Your task to perform on an android device: What's the weather going to be this weekend? Image 0: 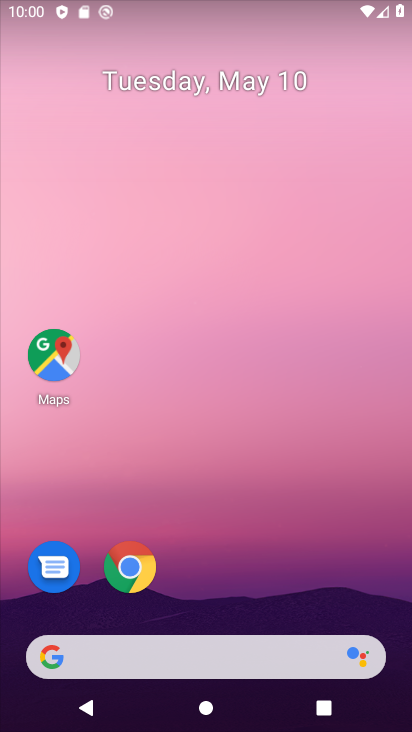
Step 0: click (242, 650)
Your task to perform on an android device: What's the weather going to be this weekend? Image 1: 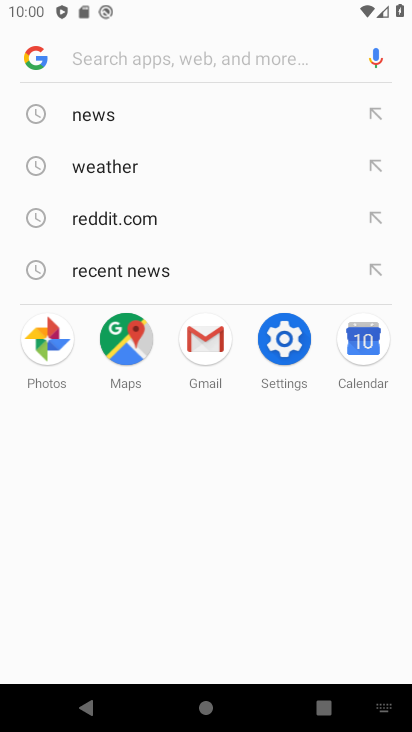
Step 1: type "What's the weather going to be this weekend?"
Your task to perform on an android device: What's the weather going to be this weekend? Image 2: 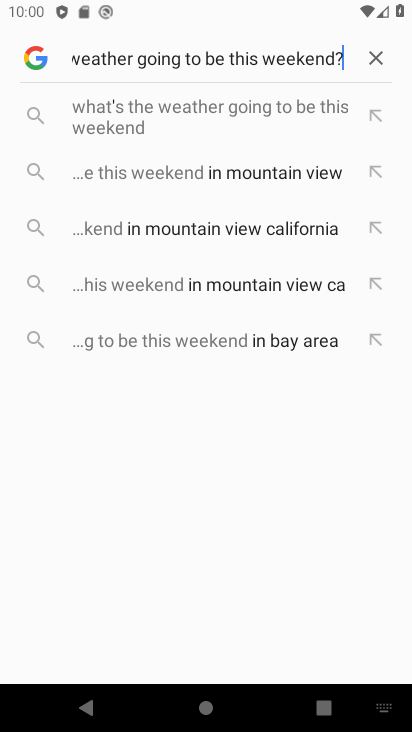
Step 2: click (135, 56)
Your task to perform on an android device: What's the weather going to be this weekend? Image 3: 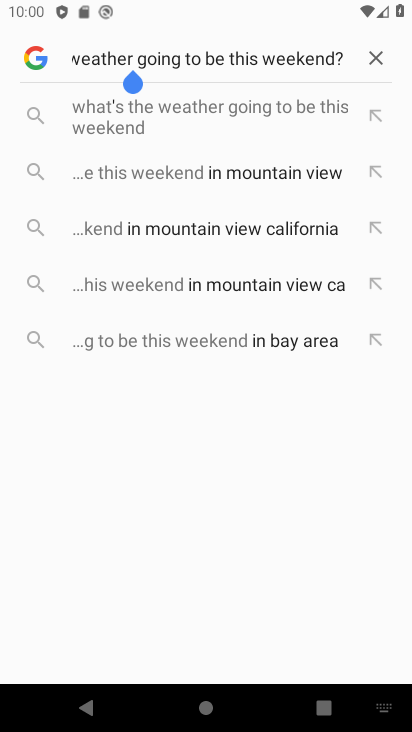
Step 3: click (133, 106)
Your task to perform on an android device: What's the weather going to be this weekend? Image 4: 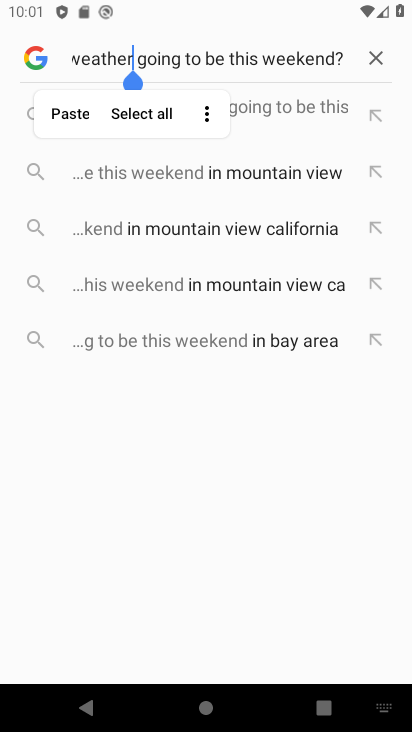
Step 4: click (278, 112)
Your task to perform on an android device: What's the weather going to be this weekend? Image 5: 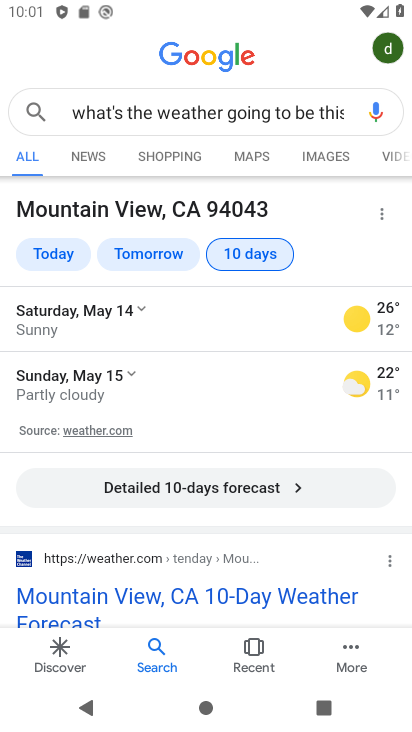
Step 5: task complete